Your task to perform on an android device: change notifications settings Image 0: 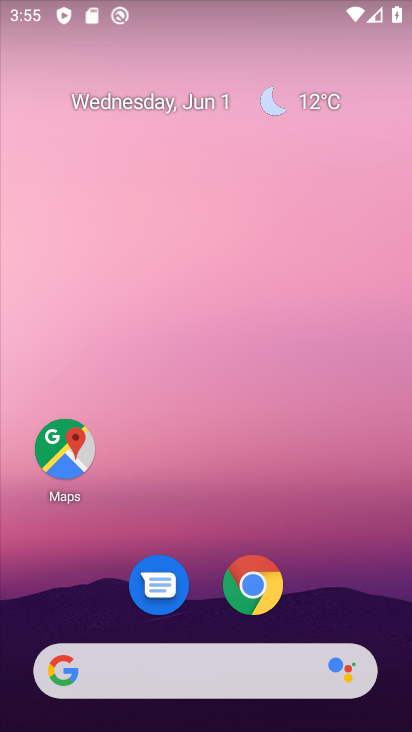
Step 0: drag from (298, 565) to (287, 21)
Your task to perform on an android device: change notifications settings Image 1: 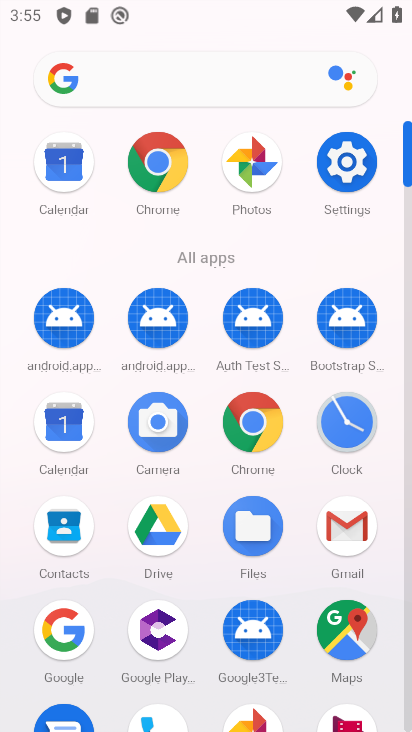
Step 1: click (340, 165)
Your task to perform on an android device: change notifications settings Image 2: 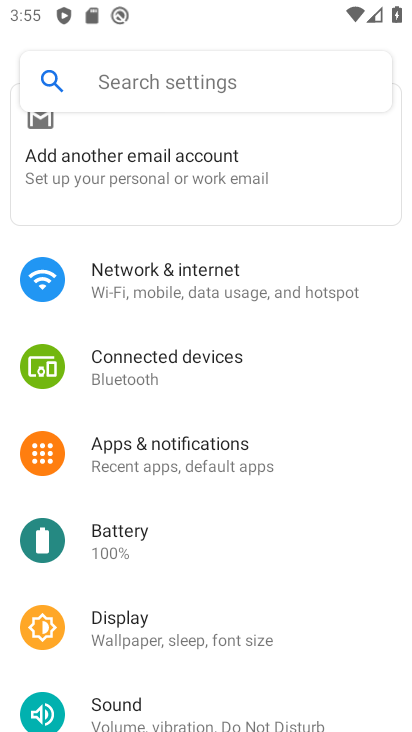
Step 2: click (214, 451)
Your task to perform on an android device: change notifications settings Image 3: 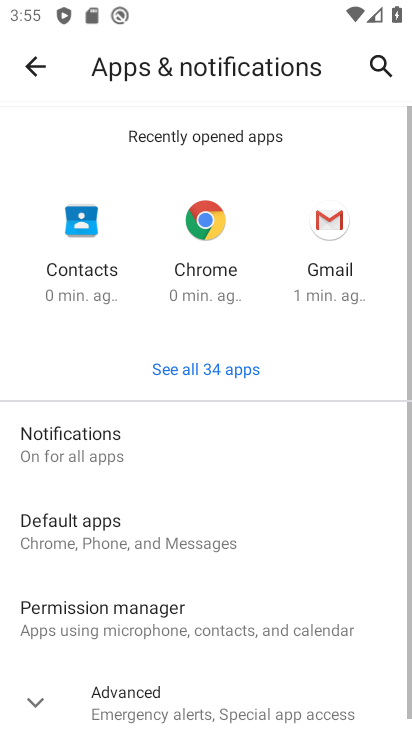
Step 3: click (214, 451)
Your task to perform on an android device: change notifications settings Image 4: 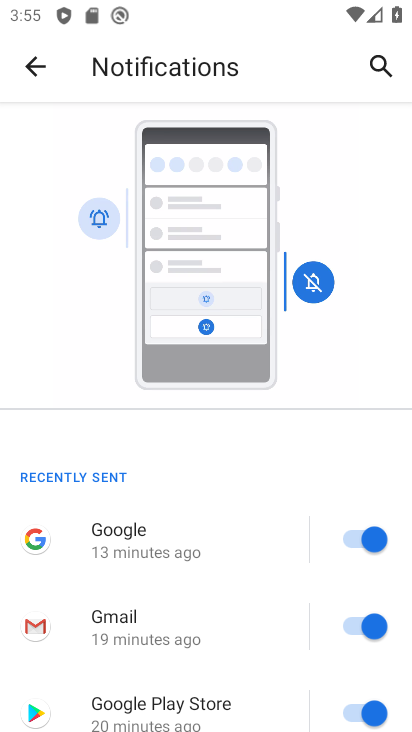
Step 4: drag from (257, 537) to (282, 194)
Your task to perform on an android device: change notifications settings Image 5: 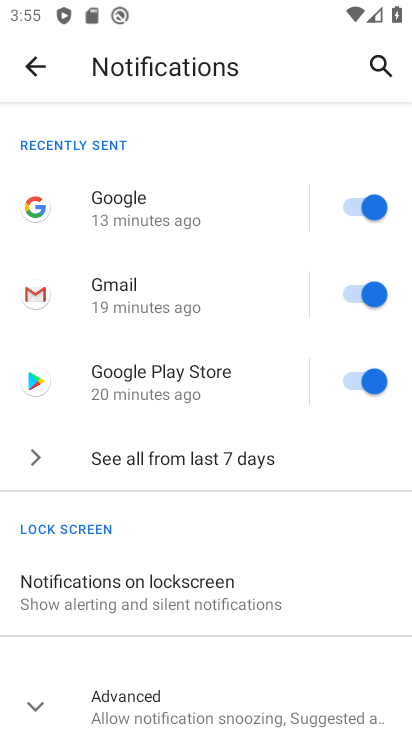
Step 5: click (215, 454)
Your task to perform on an android device: change notifications settings Image 6: 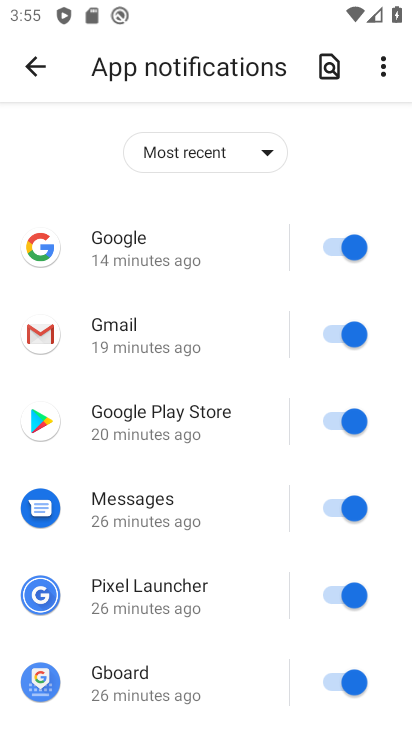
Step 6: click (346, 251)
Your task to perform on an android device: change notifications settings Image 7: 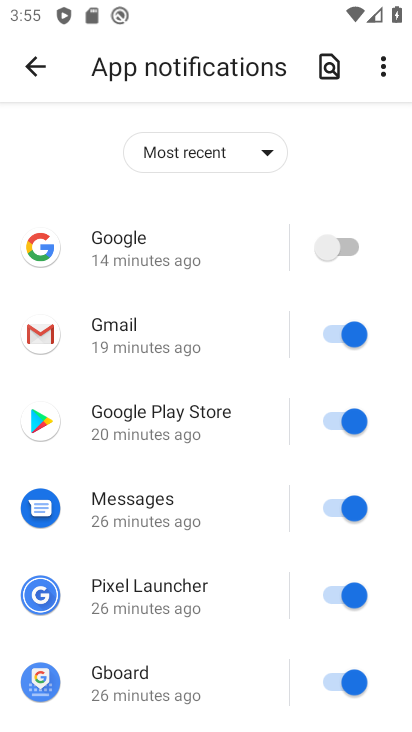
Step 7: click (345, 327)
Your task to perform on an android device: change notifications settings Image 8: 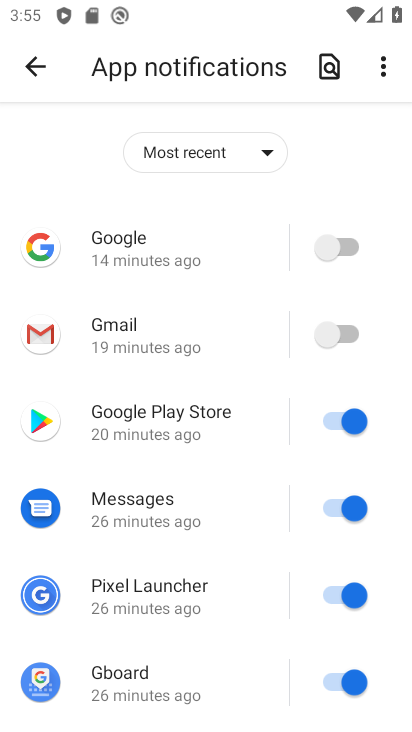
Step 8: click (338, 420)
Your task to perform on an android device: change notifications settings Image 9: 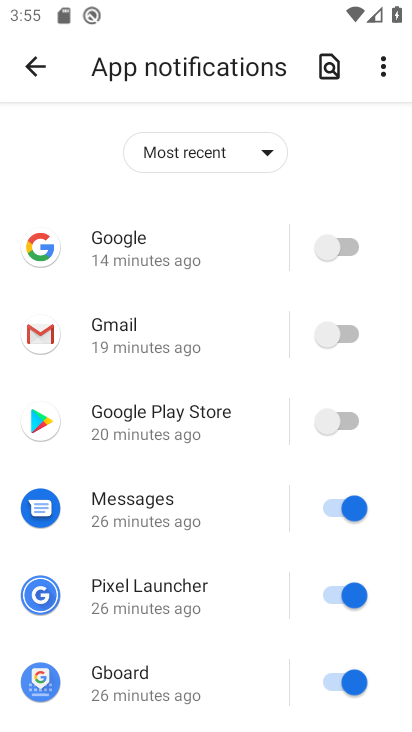
Step 9: click (333, 502)
Your task to perform on an android device: change notifications settings Image 10: 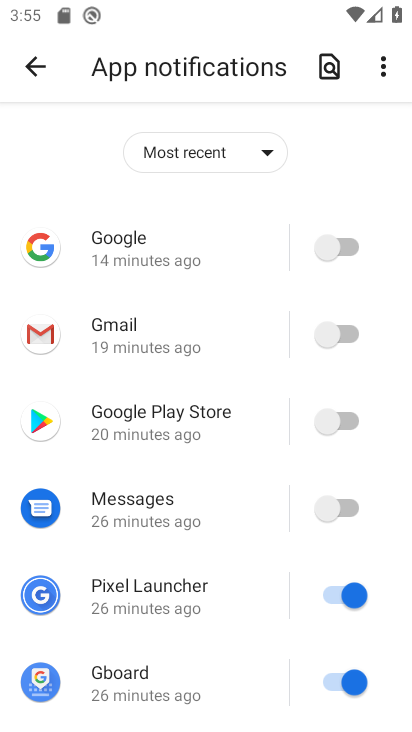
Step 10: click (341, 583)
Your task to perform on an android device: change notifications settings Image 11: 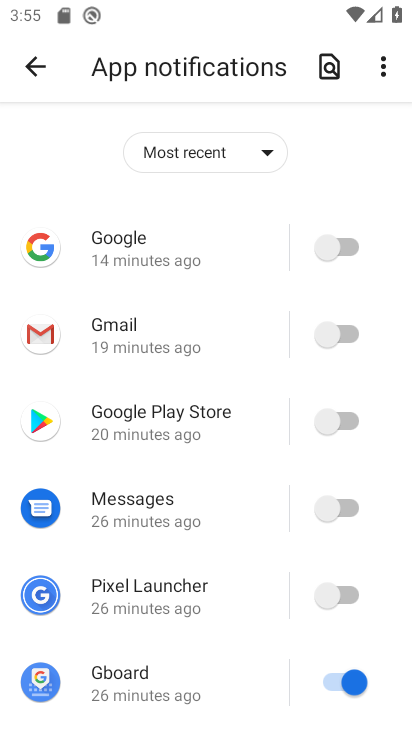
Step 11: click (343, 671)
Your task to perform on an android device: change notifications settings Image 12: 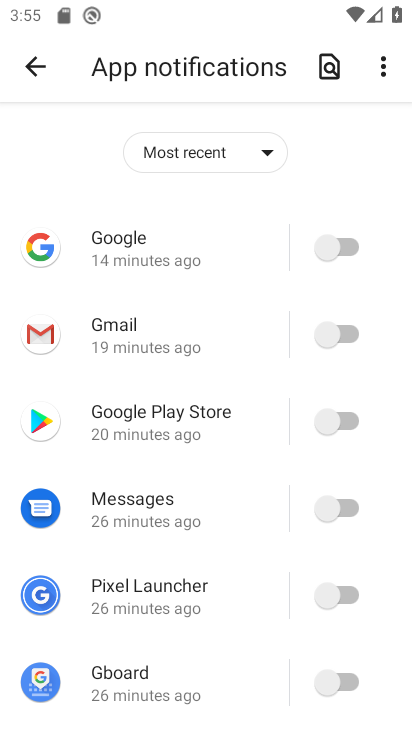
Step 12: task complete